Your task to perform on an android device: Play the new Demi Lovato video on YouTube Image 0: 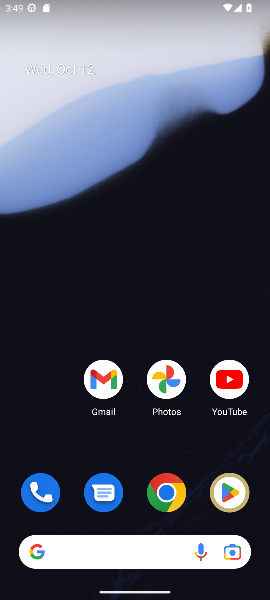
Step 0: click (223, 389)
Your task to perform on an android device: Play the new Demi Lovato video on YouTube Image 1: 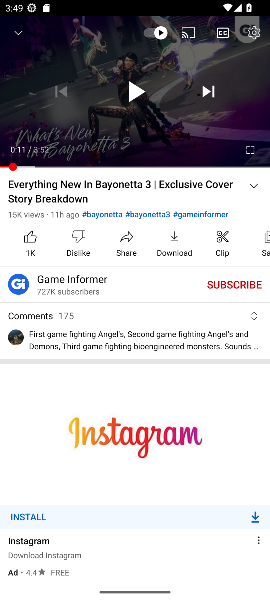
Step 1: click (20, 45)
Your task to perform on an android device: Play the new Demi Lovato video on YouTube Image 2: 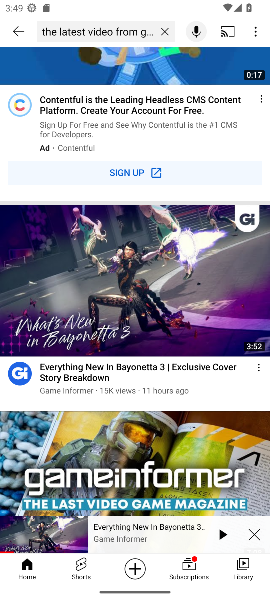
Step 2: click (165, 32)
Your task to perform on an android device: Play the new Demi Lovato video on YouTube Image 3: 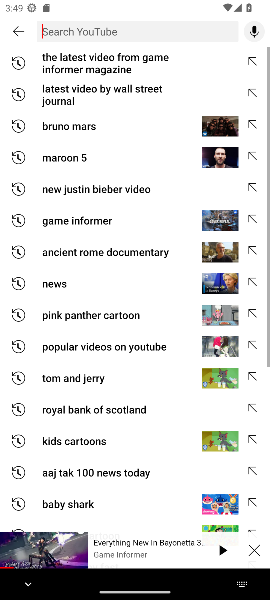
Step 3: click (135, 31)
Your task to perform on an android device: Play the new Demi Lovato video on YouTube Image 4: 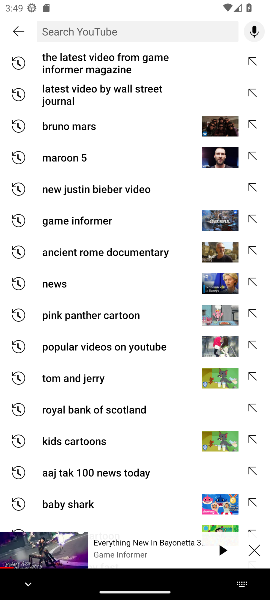
Step 4: type "new Demi Lovato video "
Your task to perform on an android device: Play the new Demi Lovato video on YouTube Image 5: 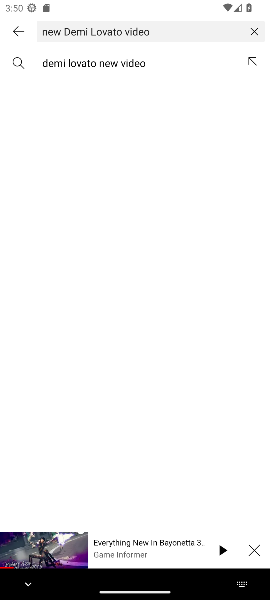
Step 5: click (121, 61)
Your task to perform on an android device: Play the new Demi Lovato video on YouTube Image 6: 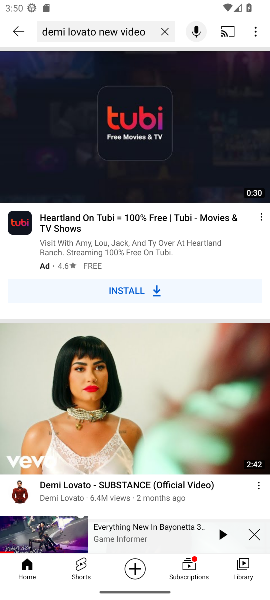
Step 6: drag from (126, 355) to (113, 90)
Your task to perform on an android device: Play the new Demi Lovato video on YouTube Image 7: 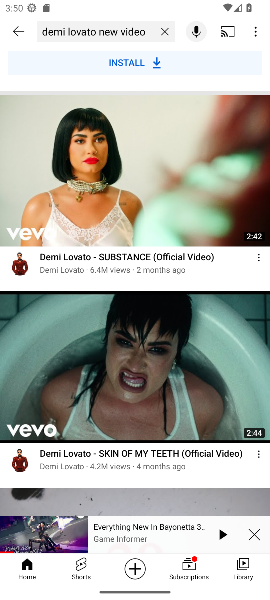
Step 7: click (85, 169)
Your task to perform on an android device: Play the new Demi Lovato video on YouTube Image 8: 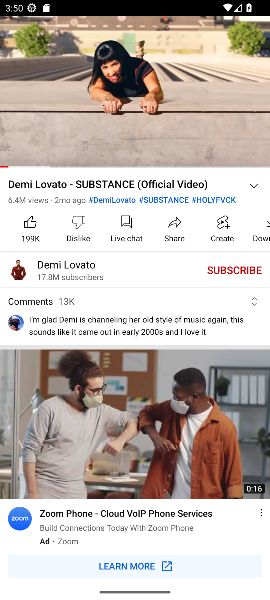
Step 8: click (142, 125)
Your task to perform on an android device: Play the new Demi Lovato video on YouTube Image 9: 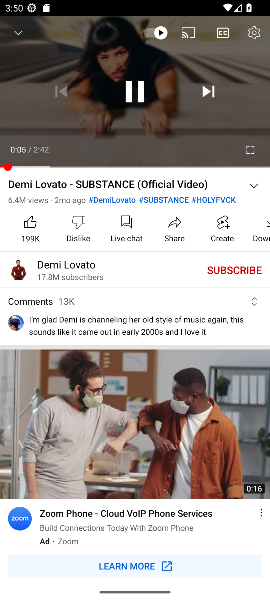
Step 9: click (131, 93)
Your task to perform on an android device: Play the new Demi Lovato video on YouTube Image 10: 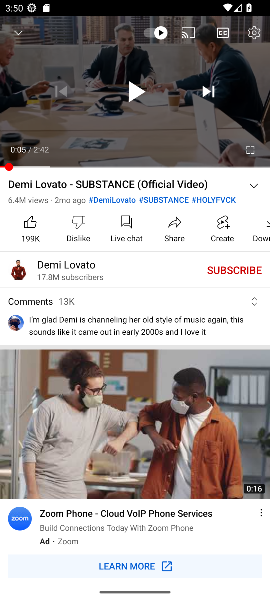
Step 10: task complete